Your task to perform on an android device: toggle notifications settings in the gmail app Image 0: 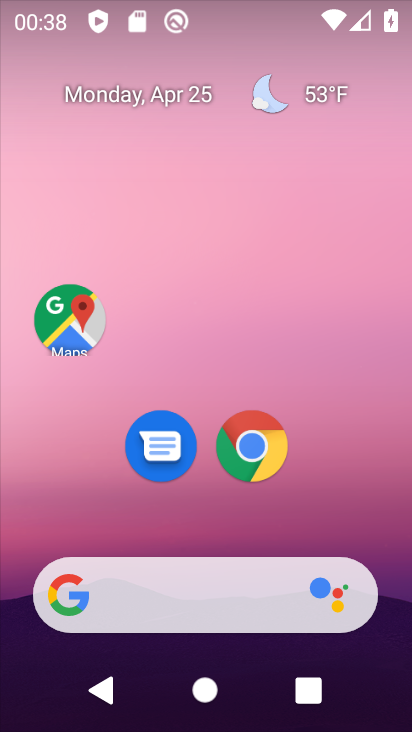
Step 0: drag from (226, 526) to (249, 35)
Your task to perform on an android device: toggle notifications settings in the gmail app Image 1: 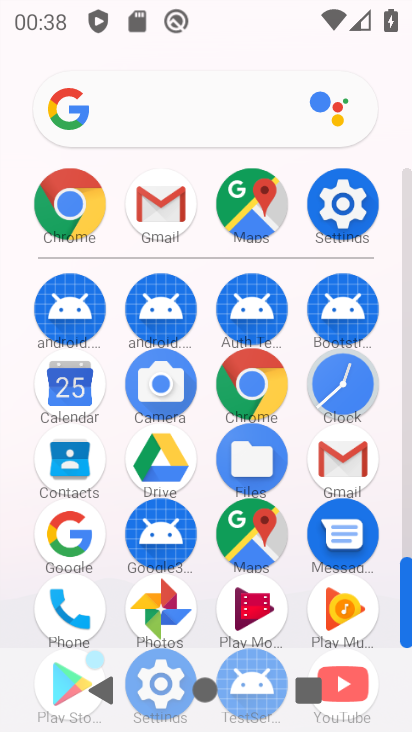
Step 1: click (337, 468)
Your task to perform on an android device: toggle notifications settings in the gmail app Image 2: 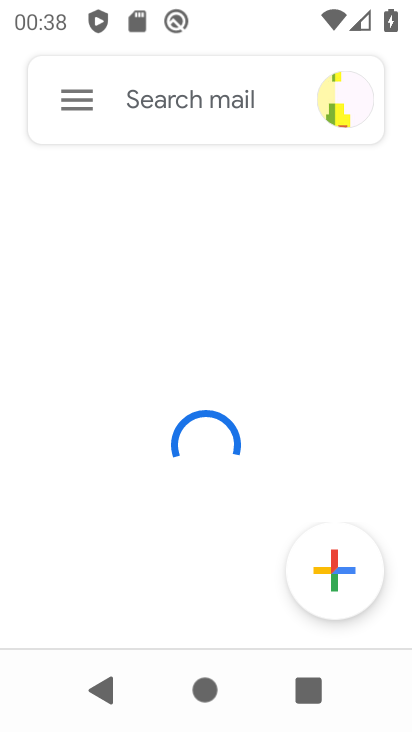
Step 2: click (61, 107)
Your task to perform on an android device: toggle notifications settings in the gmail app Image 3: 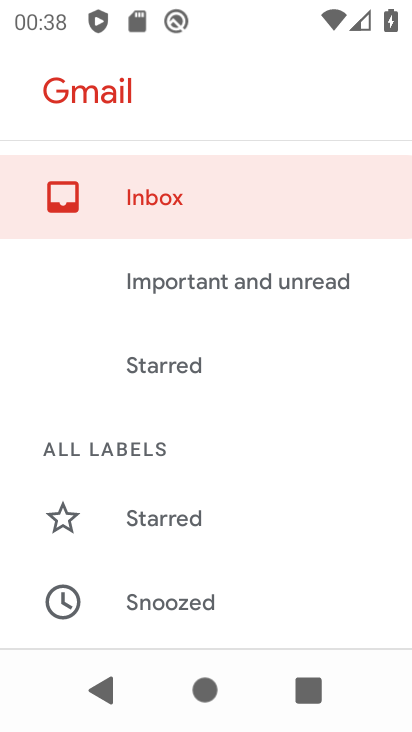
Step 3: drag from (130, 554) to (266, 59)
Your task to perform on an android device: toggle notifications settings in the gmail app Image 4: 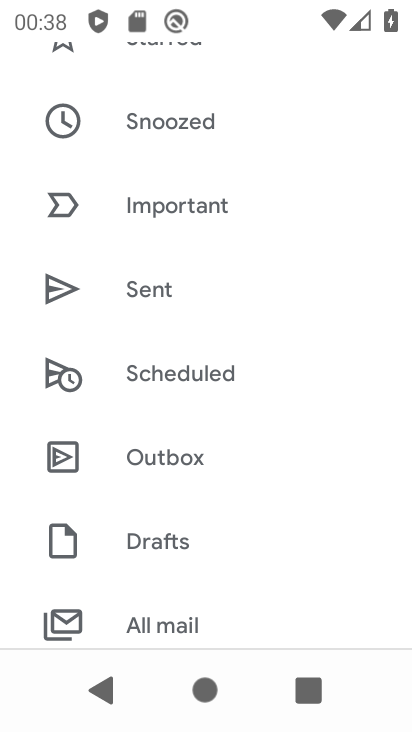
Step 4: drag from (181, 560) to (311, 46)
Your task to perform on an android device: toggle notifications settings in the gmail app Image 5: 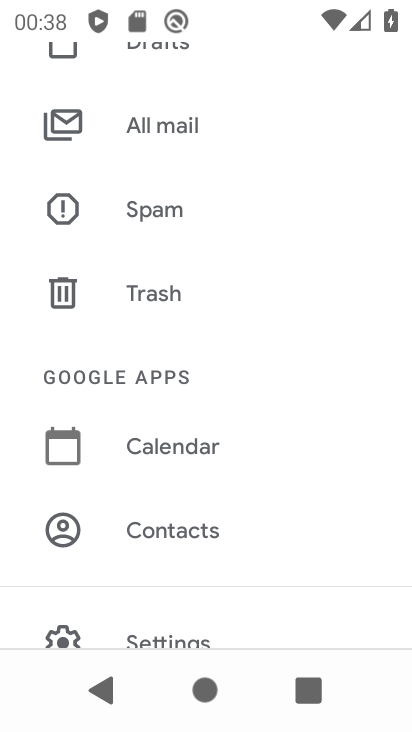
Step 5: drag from (171, 553) to (262, 218)
Your task to perform on an android device: toggle notifications settings in the gmail app Image 6: 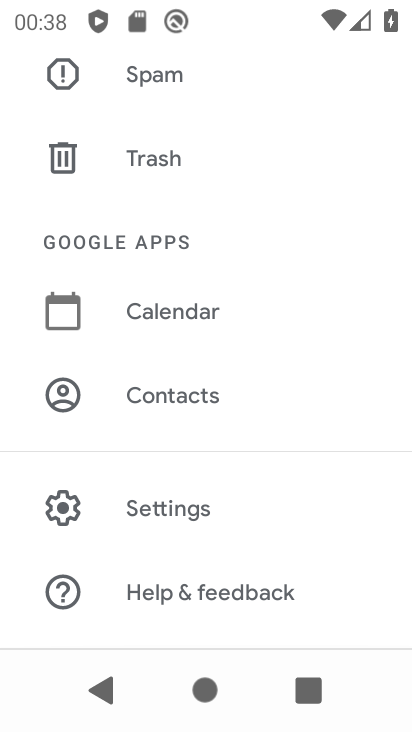
Step 6: click (179, 519)
Your task to perform on an android device: toggle notifications settings in the gmail app Image 7: 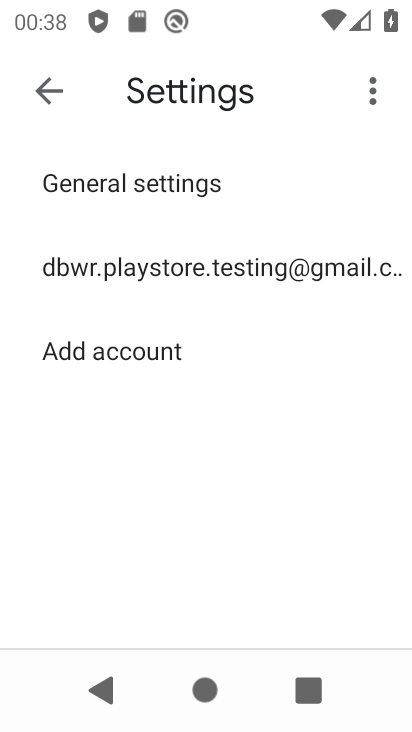
Step 7: click (154, 195)
Your task to perform on an android device: toggle notifications settings in the gmail app Image 8: 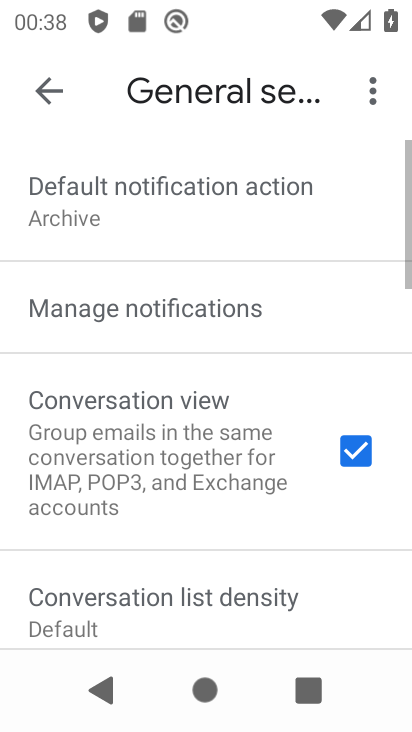
Step 8: click (156, 309)
Your task to perform on an android device: toggle notifications settings in the gmail app Image 9: 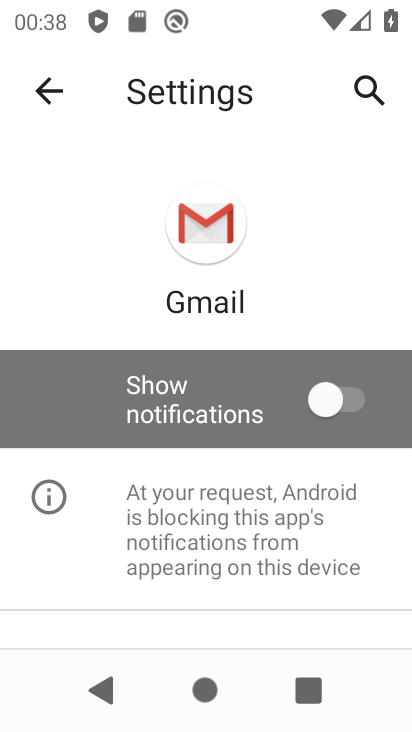
Step 9: click (347, 393)
Your task to perform on an android device: toggle notifications settings in the gmail app Image 10: 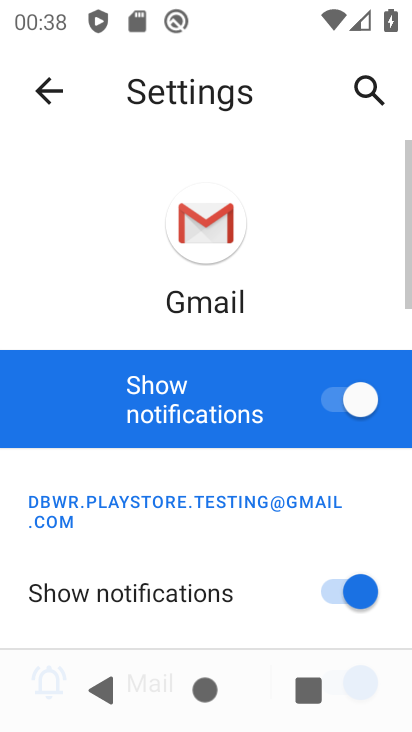
Step 10: task complete